Your task to perform on an android device: Go to Wikipedia Image 0: 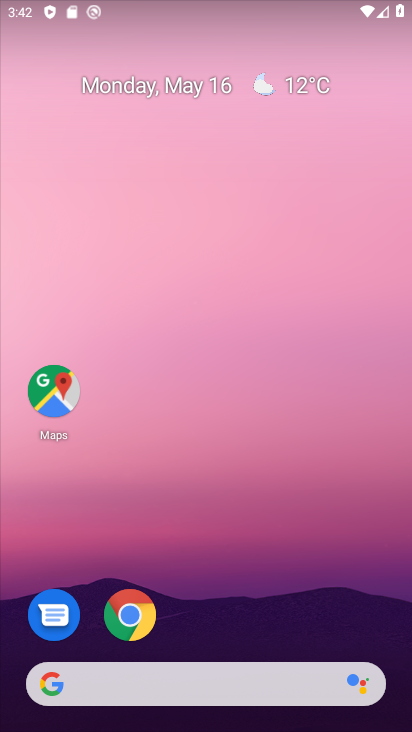
Step 0: drag from (232, 700) to (4, 2)
Your task to perform on an android device: Go to Wikipedia Image 1: 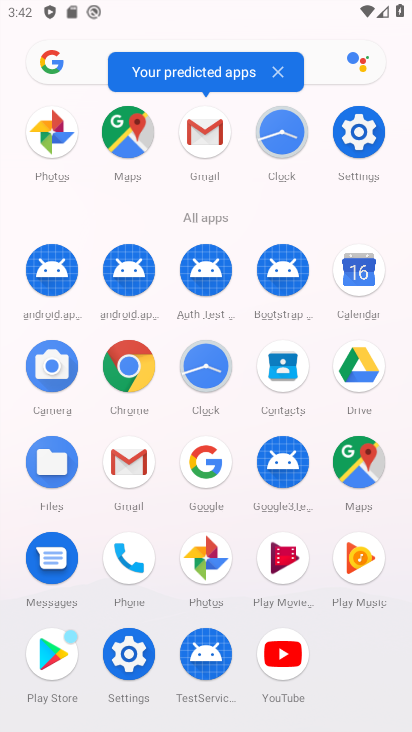
Step 1: click (116, 367)
Your task to perform on an android device: Go to Wikipedia Image 2: 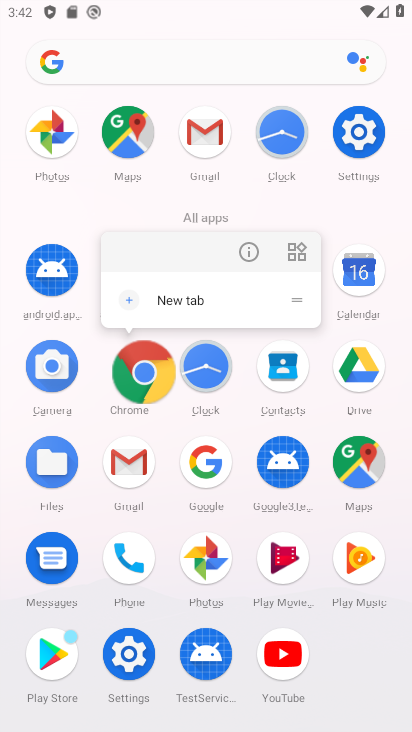
Step 2: click (133, 365)
Your task to perform on an android device: Go to Wikipedia Image 3: 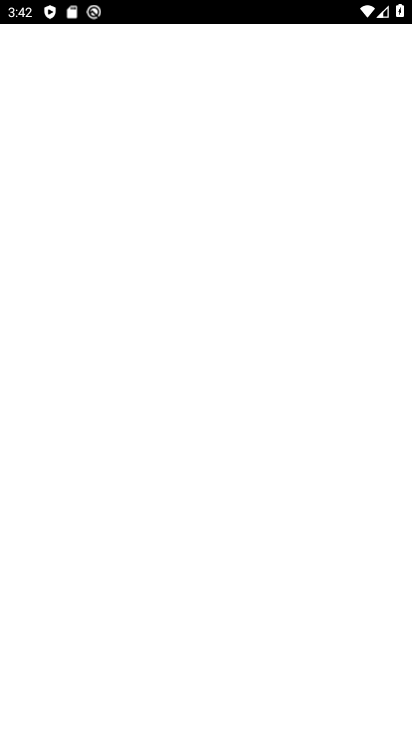
Step 3: click (134, 362)
Your task to perform on an android device: Go to Wikipedia Image 4: 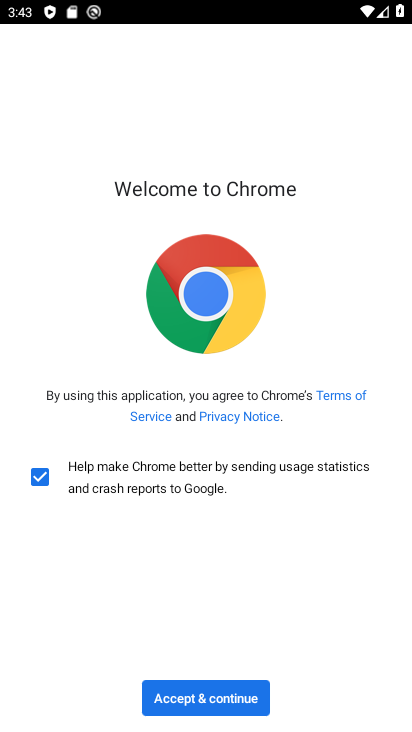
Step 4: click (214, 700)
Your task to perform on an android device: Go to Wikipedia Image 5: 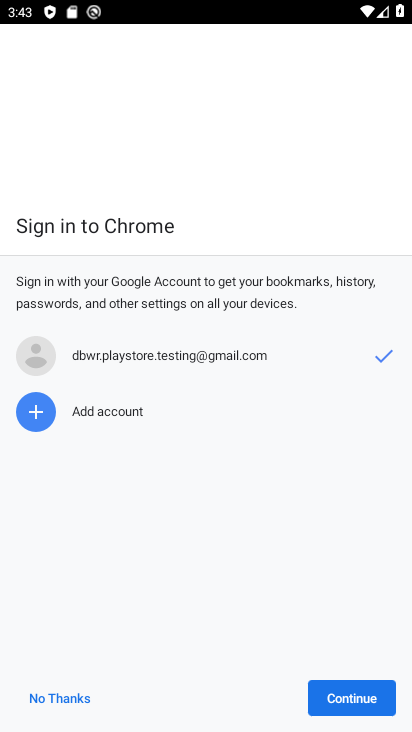
Step 5: click (345, 700)
Your task to perform on an android device: Go to Wikipedia Image 6: 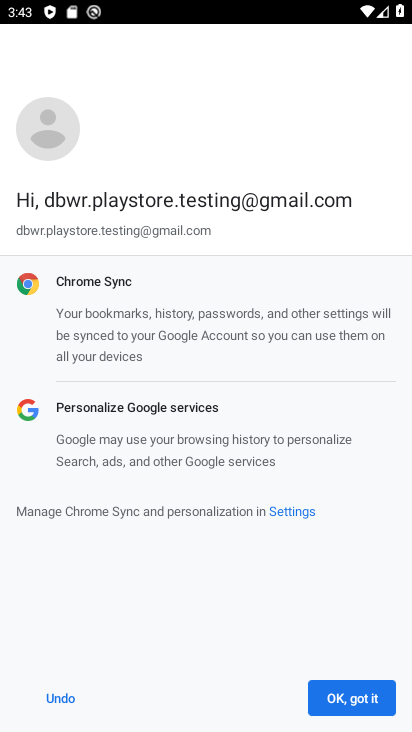
Step 6: click (346, 700)
Your task to perform on an android device: Go to Wikipedia Image 7: 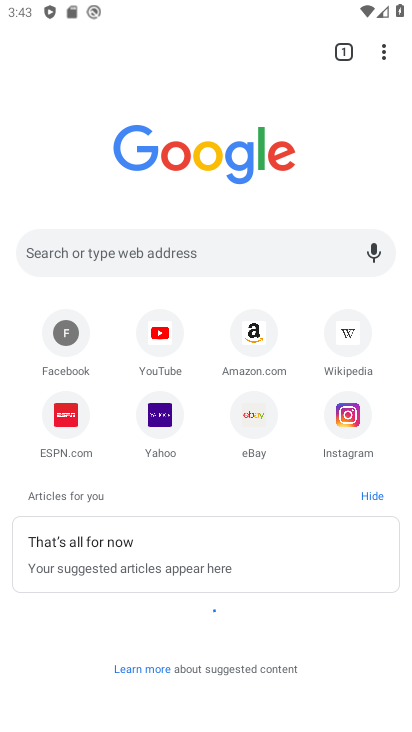
Step 7: click (350, 341)
Your task to perform on an android device: Go to Wikipedia Image 8: 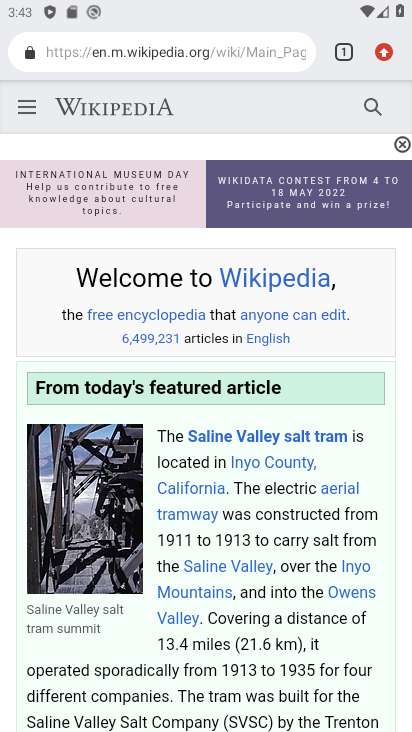
Step 8: press back button
Your task to perform on an android device: Go to Wikipedia Image 9: 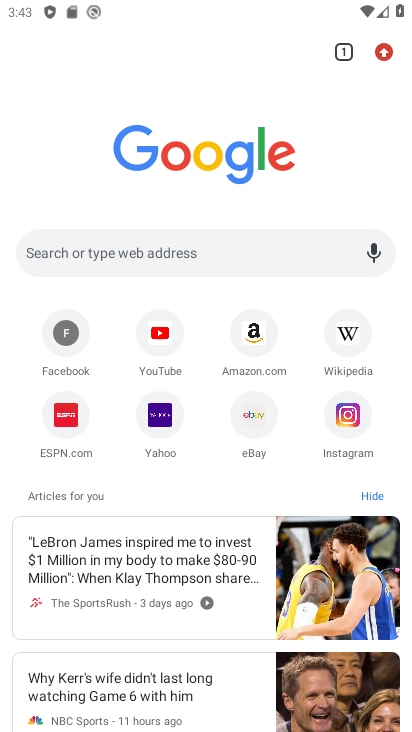
Step 9: click (340, 337)
Your task to perform on an android device: Go to Wikipedia Image 10: 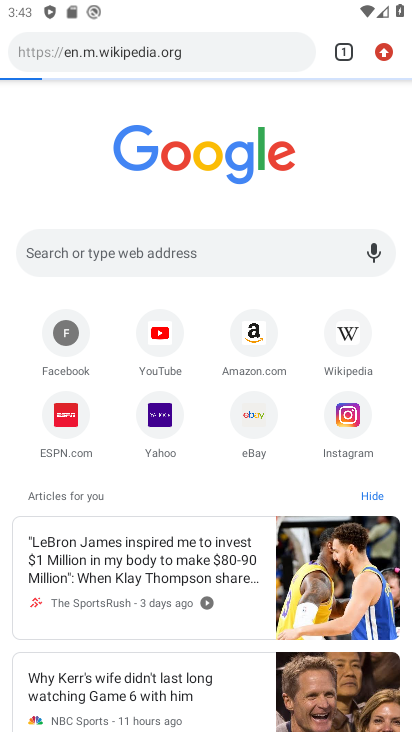
Step 10: click (343, 326)
Your task to perform on an android device: Go to Wikipedia Image 11: 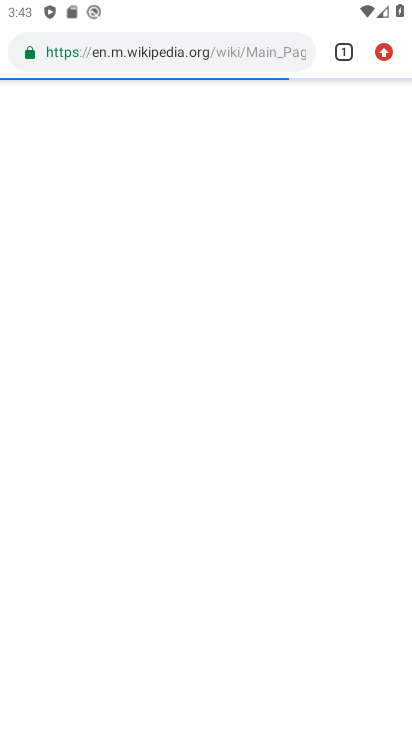
Step 11: click (355, 330)
Your task to perform on an android device: Go to Wikipedia Image 12: 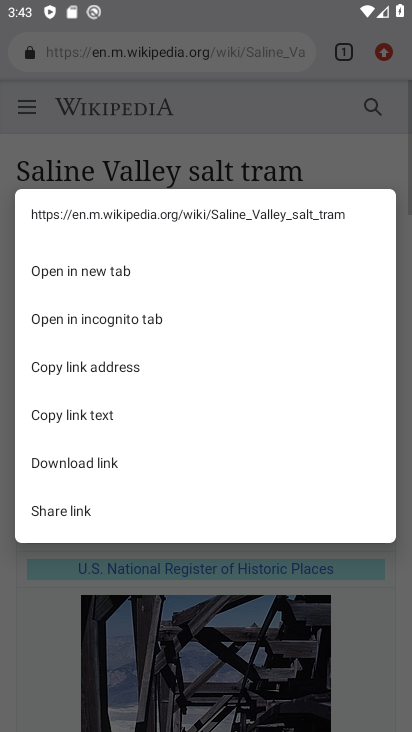
Step 12: task complete